Your task to perform on an android device: turn off location Image 0: 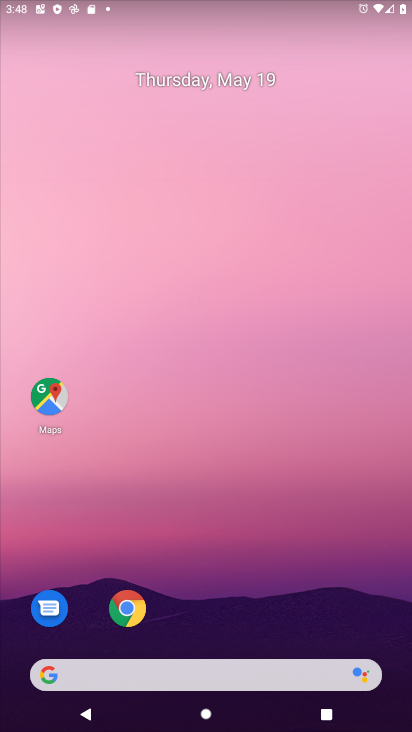
Step 0: click (371, 626)
Your task to perform on an android device: turn off location Image 1: 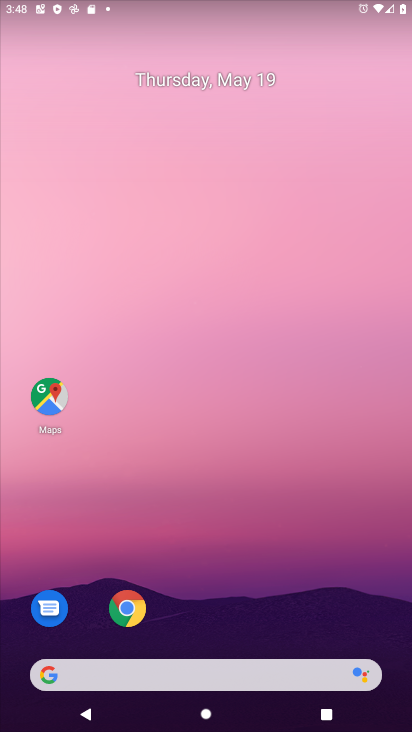
Step 1: drag from (371, 626) to (158, 3)
Your task to perform on an android device: turn off location Image 2: 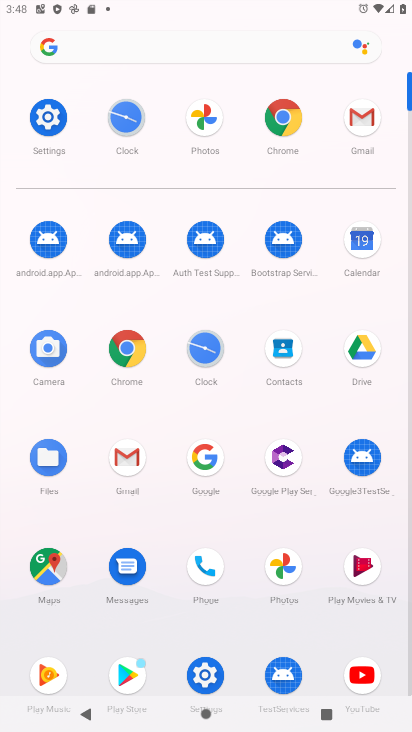
Step 2: click (52, 154)
Your task to perform on an android device: turn off location Image 3: 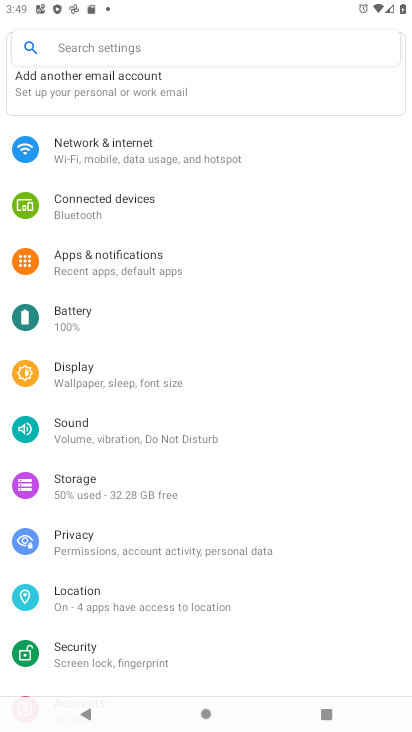
Step 3: click (157, 590)
Your task to perform on an android device: turn off location Image 4: 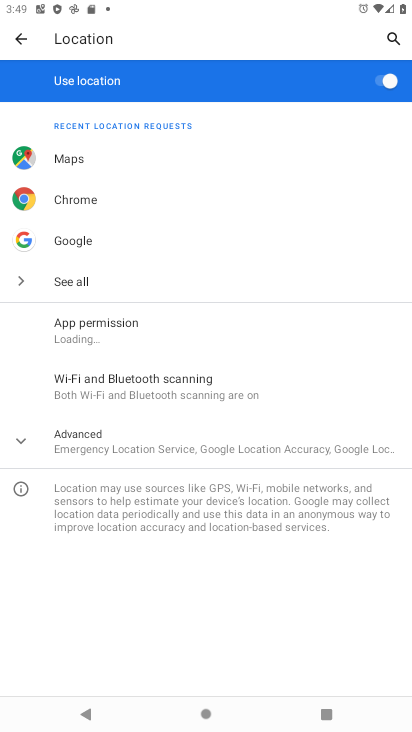
Step 4: click (390, 80)
Your task to perform on an android device: turn off location Image 5: 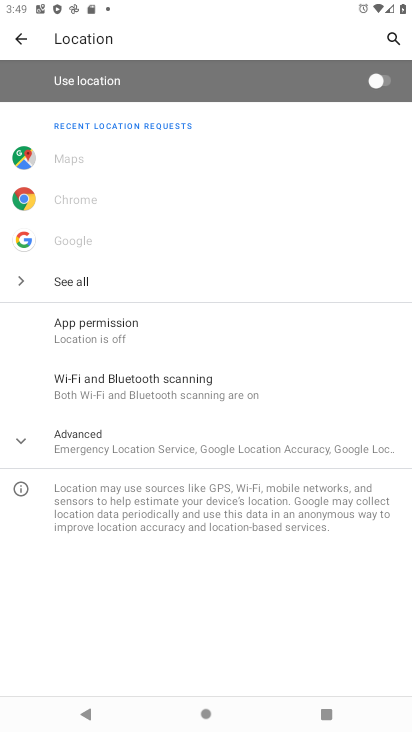
Step 5: task complete